Your task to perform on an android device: Go to battery settings Image 0: 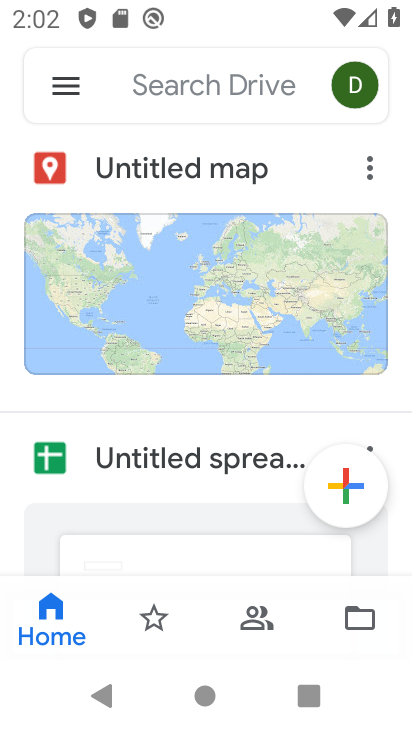
Step 0: press back button
Your task to perform on an android device: Go to battery settings Image 1: 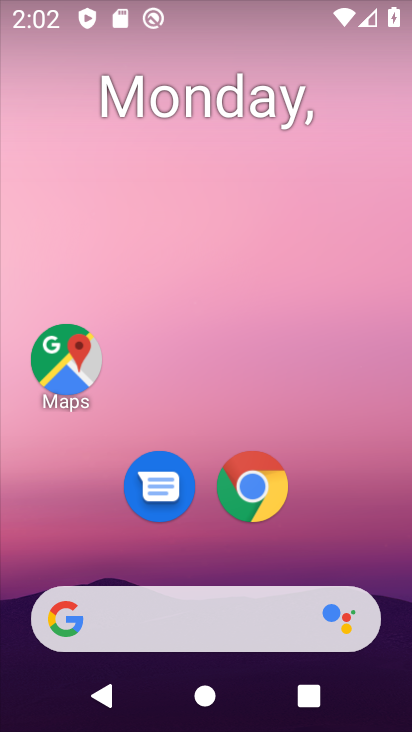
Step 1: drag from (304, 628) to (410, 78)
Your task to perform on an android device: Go to battery settings Image 2: 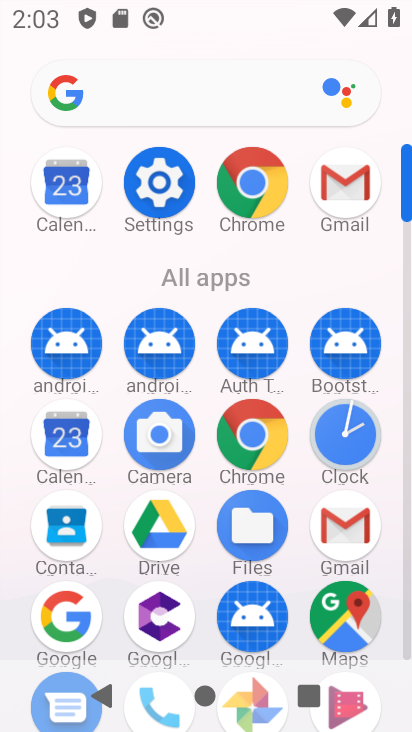
Step 2: click (164, 202)
Your task to perform on an android device: Go to battery settings Image 3: 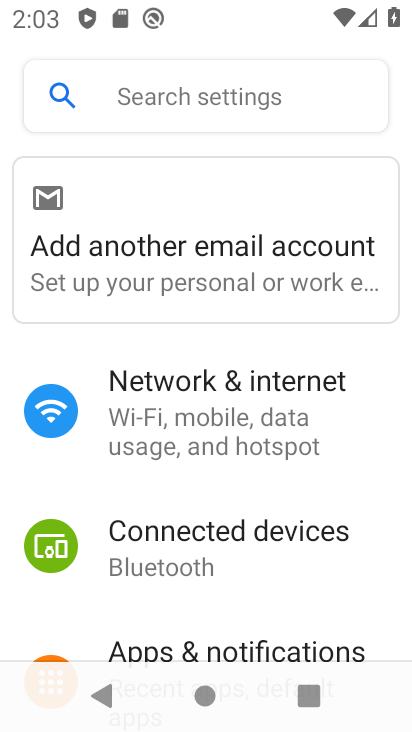
Step 3: drag from (219, 583) to (273, 155)
Your task to perform on an android device: Go to battery settings Image 4: 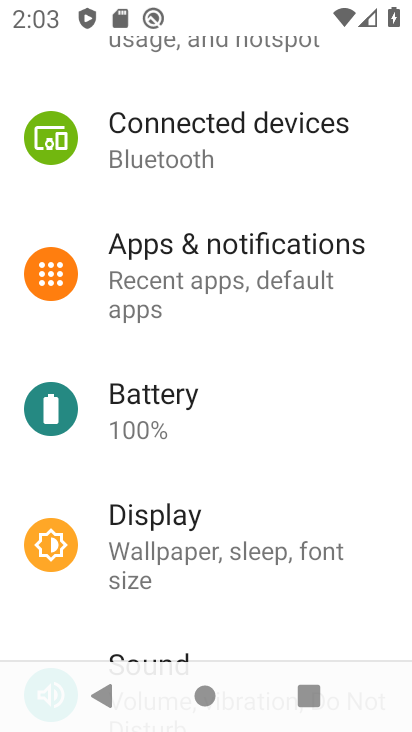
Step 4: click (155, 392)
Your task to perform on an android device: Go to battery settings Image 5: 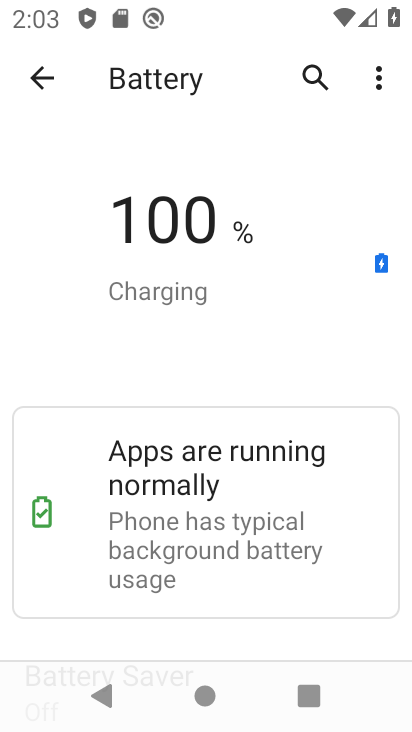
Step 5: drag from (206, 589) to (274, 307)
Your task to perform on an android device: Go to battery settings Image 6: 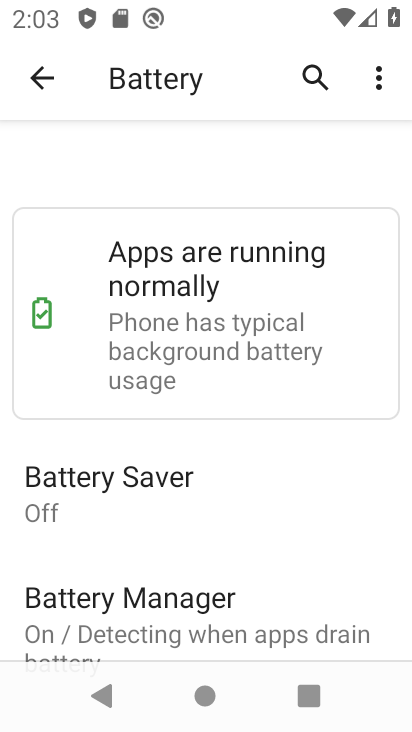
Step 6: drag from (220, 620) to (272, 376)
Your task to perform on an android device: Go to battery settings Image 7: 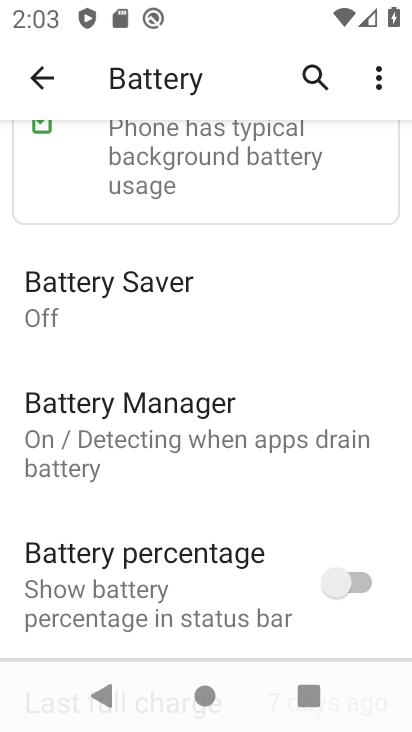
Step 7: click (97, 308)
Your task to perform on an android device: Go to battery settings Image 8: 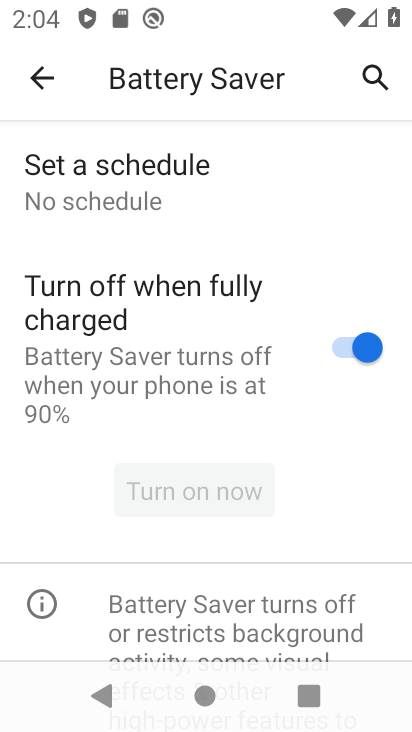
Step 8: task complete